Your task to perform on an android device: open device folders in google photos Image 0: 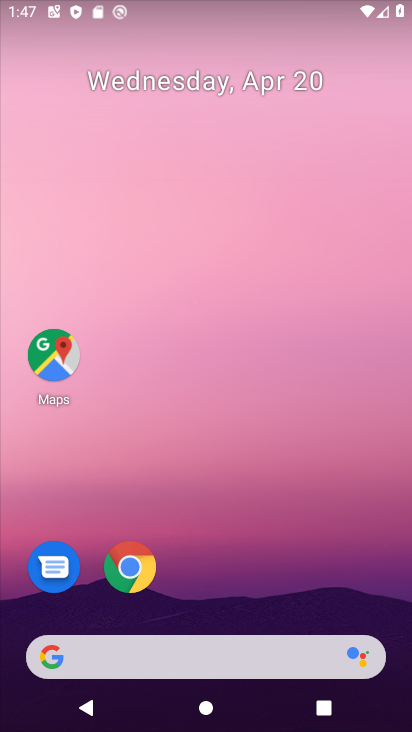
Step 0: drag from (256, 519) to (243, 111)
Your task to perform on an android device: open device folders in google photos Image 1: 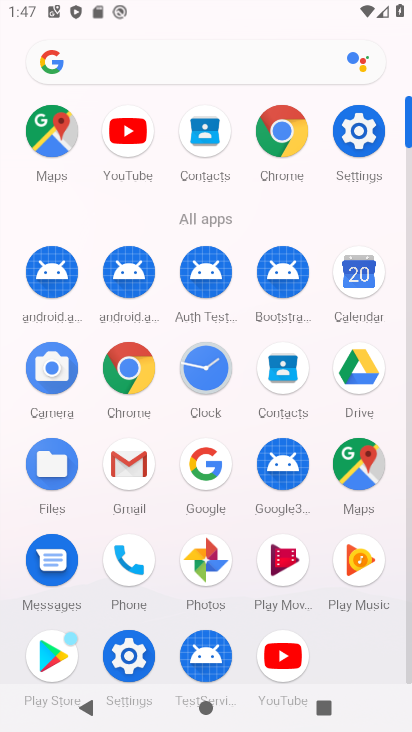
Step 1: click (202, 569)
Your task to perform on an android device: open device folders in google photos Image 2: 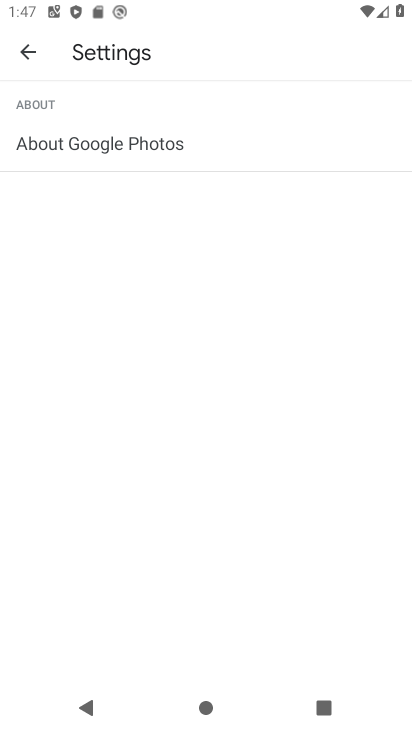
Step 2: press back button
Your task to perform on an android device: open device folders in google photos Image 3: 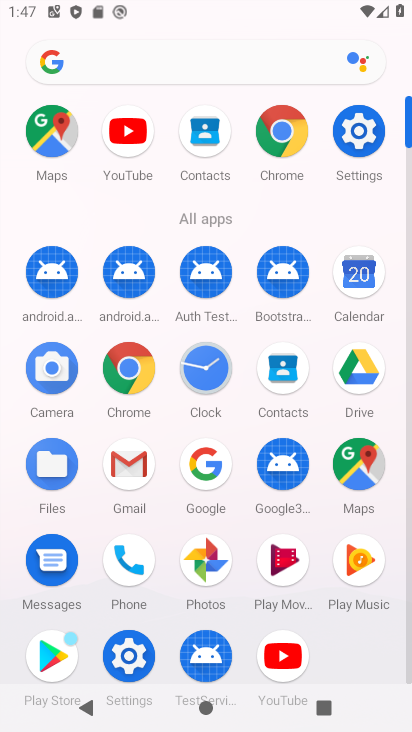
Step 3: click (229, 567)
Your task to perform on an android device: open device folders in google photos Image 4: 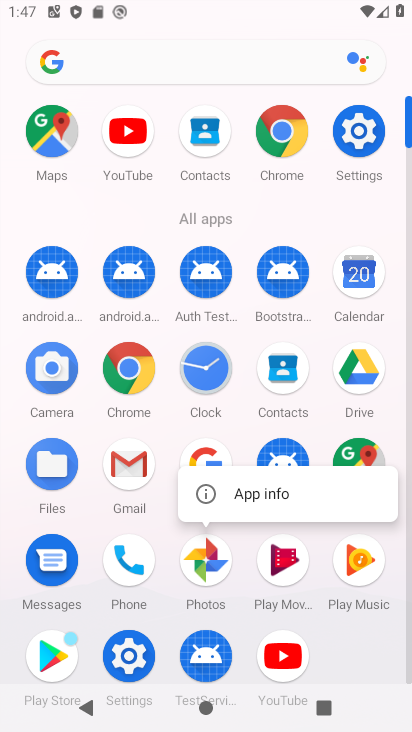
Step 4: click (217, 574)
Your task to perform on an android device: open device folders in google photos Image 5: 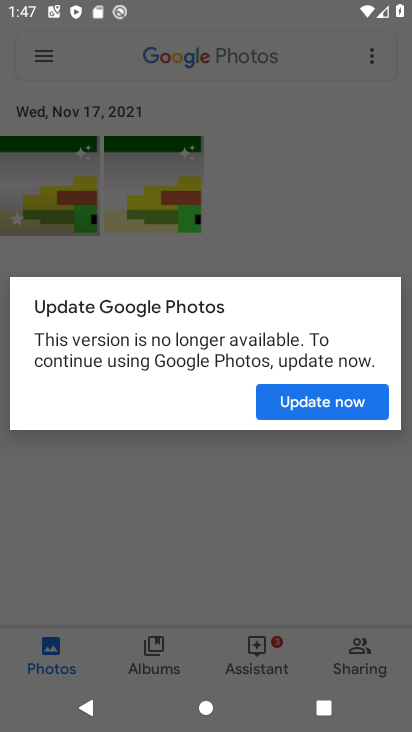
Step 5: click (317, 402)
Your task to perform on an android device: open device folders in google photos Image 6: 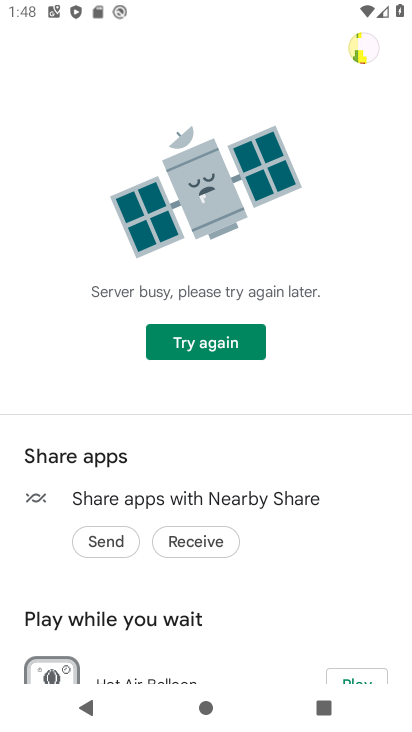
Step 6: task complete